Your task to perform on an android device: Open Maps and search for coffee Image 0: 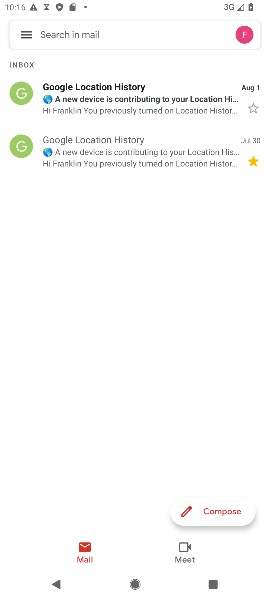
Step 0: press home button
Your task to perform on an android device: Open Maps and search for coffee Image 1: 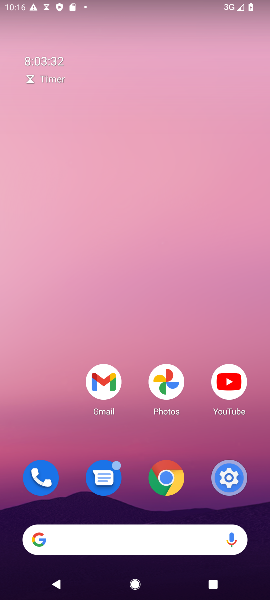
Step 1: drag from (205, 463) to (162, 110)
Your task to perform on an android device: Open Maps and search for coffee Image 2: 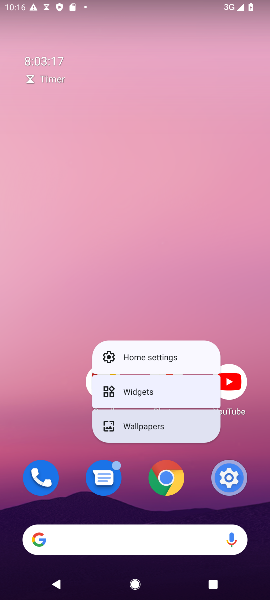
Step 2: drag from (186, 299) to (156, 79)
Your task to perform on an android device: Open Maps and search for coffee Image 3: 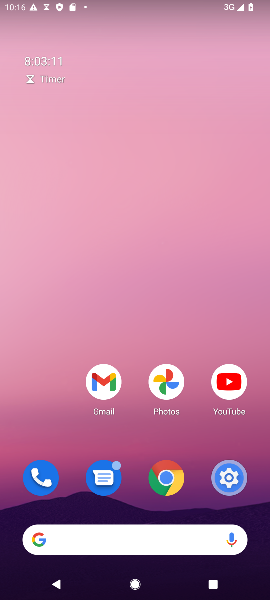
Step 3: drag from (201, 468) to (175, 95)
Your task to perform on an android device: Open Maps and search for coffee Image 4: 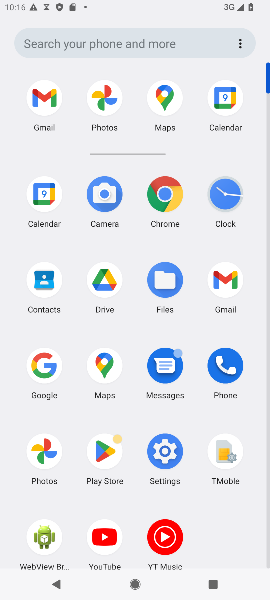
Step 4: click (102, 374)
Your task to perform on an android device: Open Maps and search for coffee Image 5: 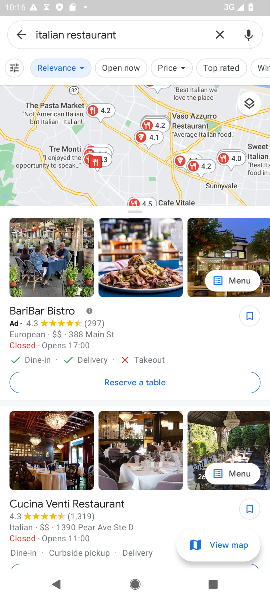
Step 5: click (219, 28)
Your task to perform on an android device: Open Maps and search for coffee Image 6: 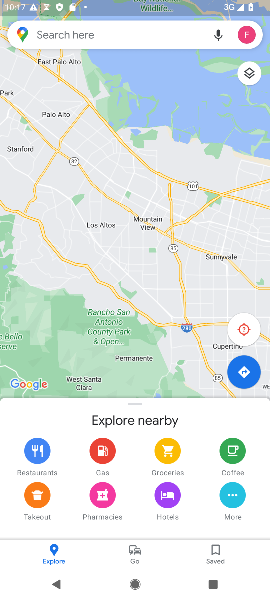
Step 6: click (185, 35)
Your task to perform on an android device: Open Maps and search for coffee Image 7: 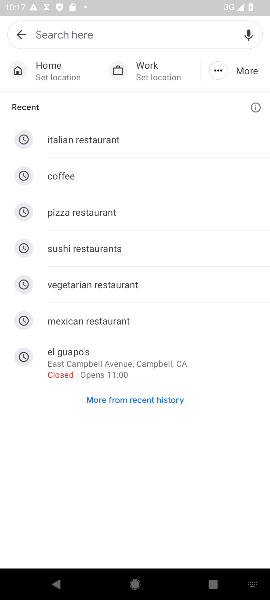
Step 7: click (220, 189)
Your task to perform on an android device: Open Maps and search for coffee Image 8: 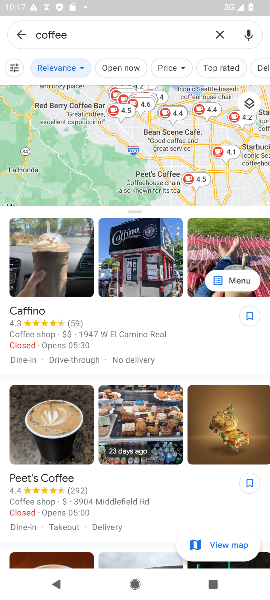
Step 8: task complete